Your task to perform on an android device: turn on improve location accuracy Image 0: 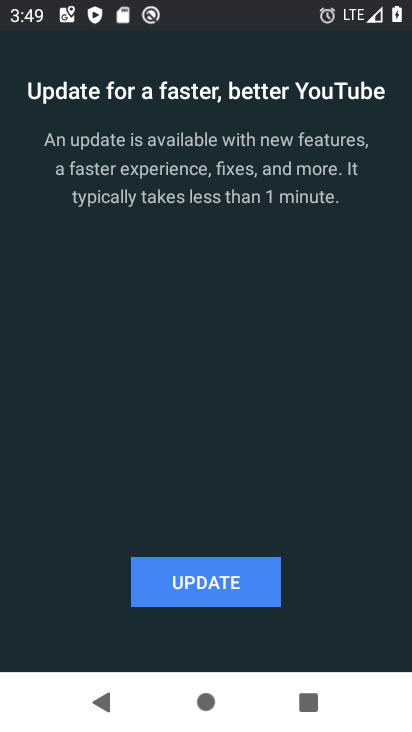
Step 0: press home button
Your task to perform on an android device: turn on improve location accuracy Image 1: 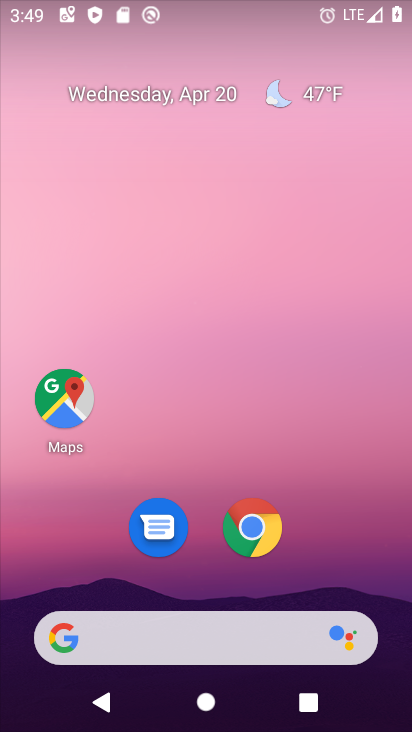
Step 1: drag from (333, 572) to (320, 43)
Your task to perform on an android device: turn on improve location accuracy Image 2: 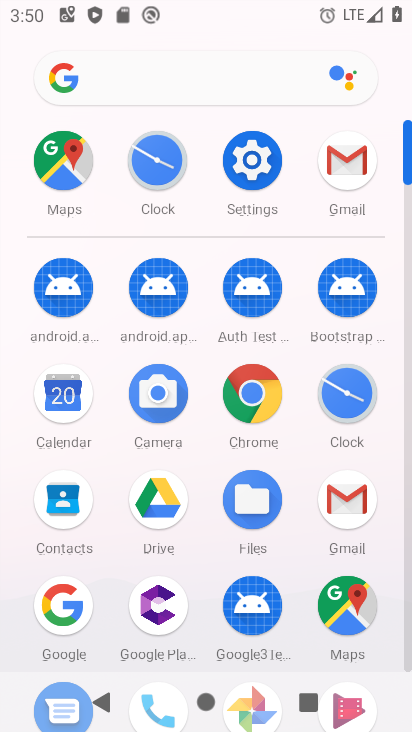
Step 2: click (241, 171)
Your task to perform on an android device: turn on improve location accuracy Image 3: 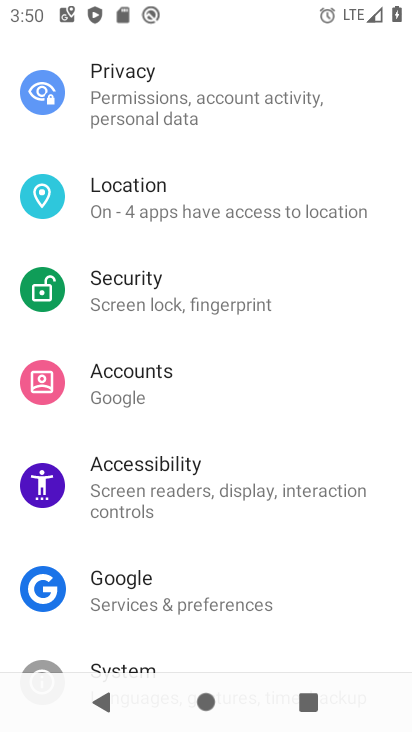
Step 3: click (274, 203)
Your task to perform on an android device: turn on improve location accuracy Image 4: 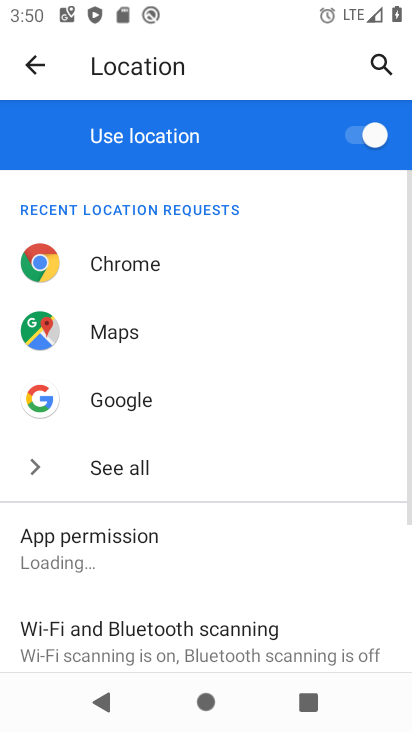
Step 4: drag from (247, 610) to (280, 259)
Your task to perform on an android device: turn on improve location accuracy Image 5: 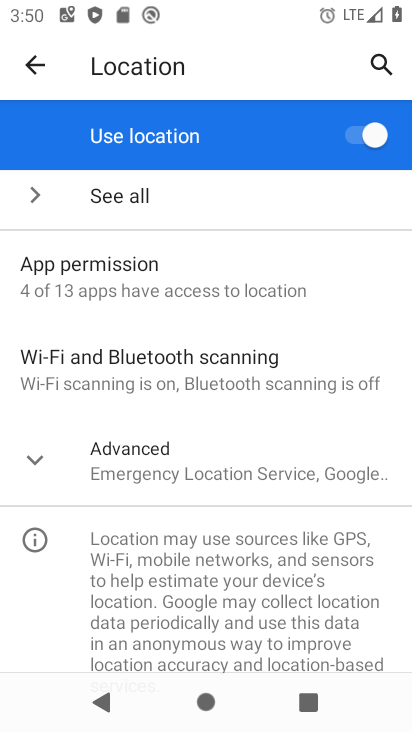
Step 5: click (32, 459)
Your task to perform on an android device: turn on improve location accuracy Image 6: 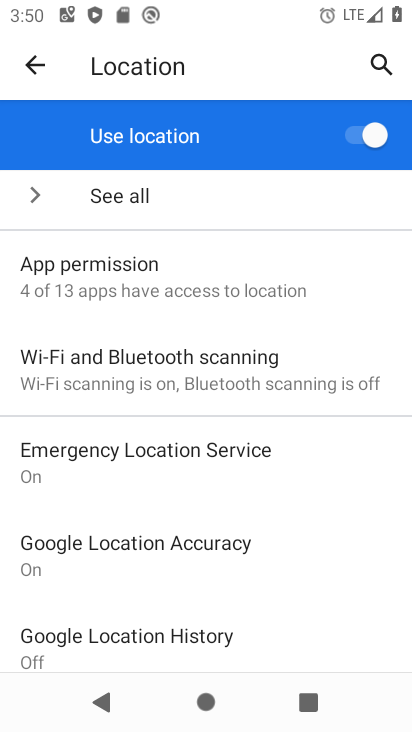
Step 6: click (232, 543)
Your task to perform on an android device: turn on improve location accuracy Image 7: 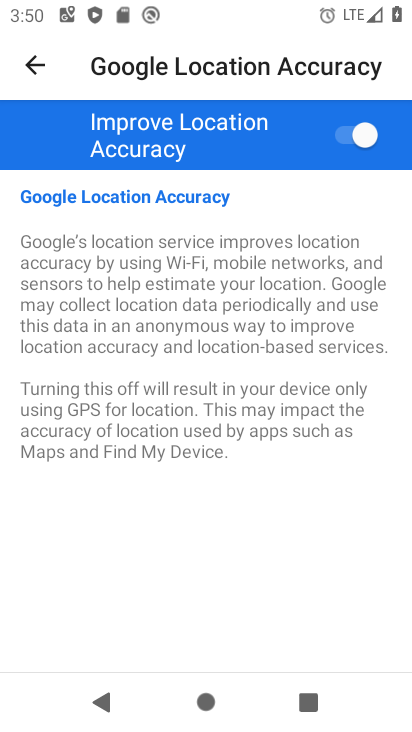
Step 7: task complete